Your task to perform on an android device: toggle priority inbox in the gmail app Image 0: 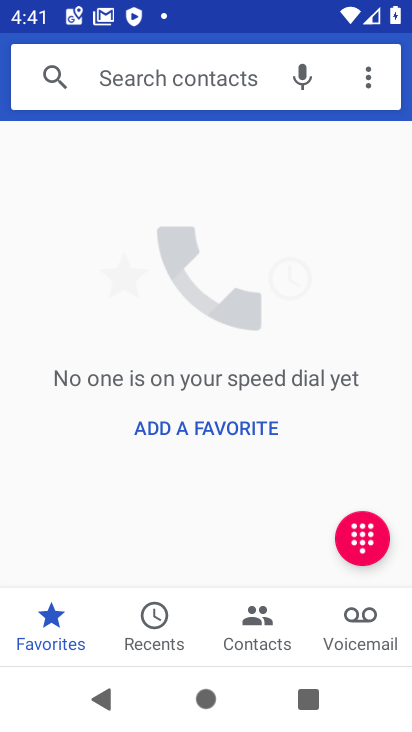
Step 0: press home button
Your task to perform on an android device: toggle priority inbox in the gmail app Image 1: 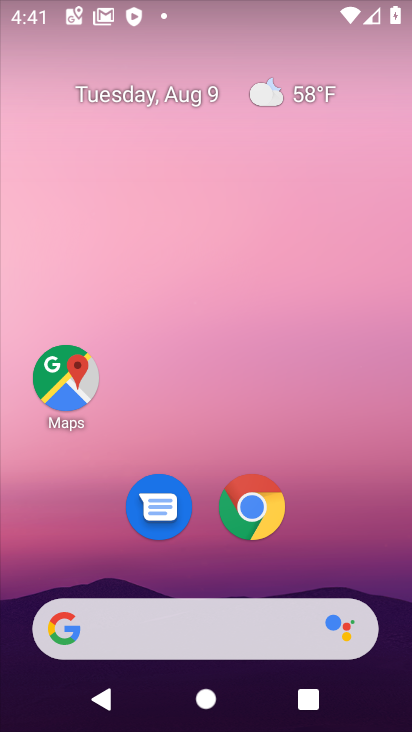
Step 1: drag from (216, 559) to (371, 23)
Your task to perform on an android device: toggle priority inbox in the gmail app Image 2: 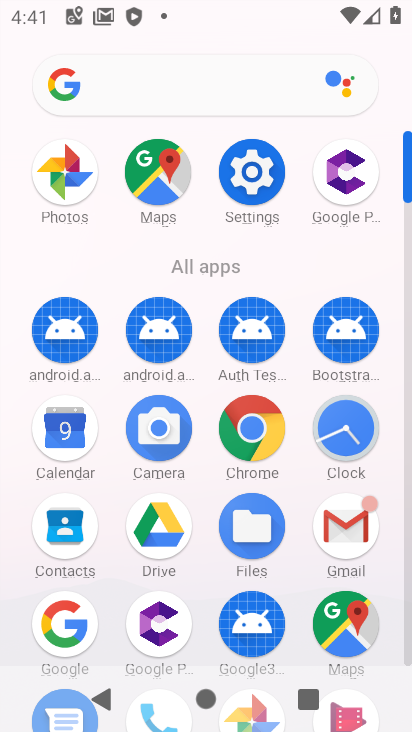
Step 2: click (346, 517)
Your task to perform on an android device: toggle priority inbox in the gmail app Image 3: 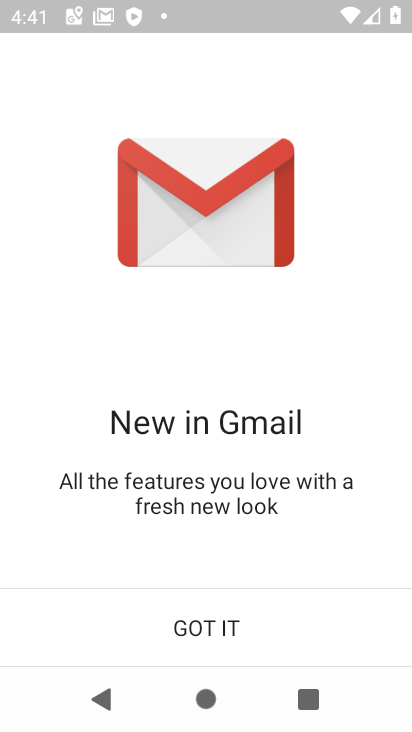
Step 3: click (275, 634)
Your task to perform on an android device: toggle priority inbox in the gmail app Image 4: 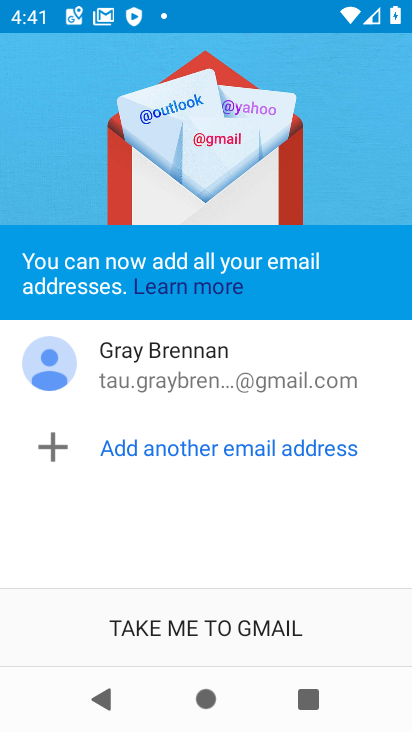
Step 4: click (275, 634)
Your task to perform on an android device: toggle priority inbox in the gmail app Image 5: 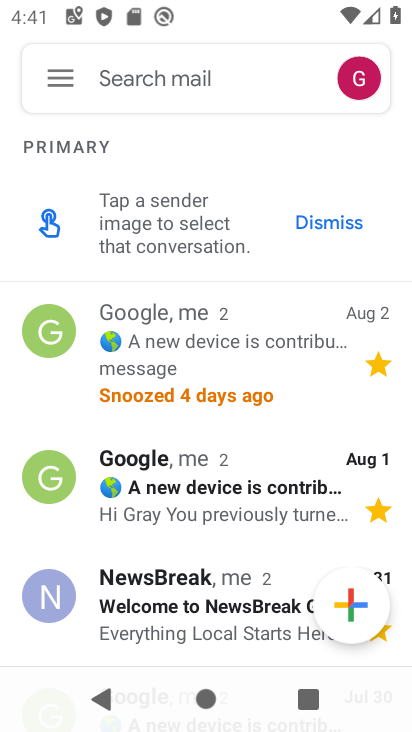
Step 5: click (54, 69)
Your task to perform on an android device: toggle priority inbox in the gmail app Image 6: 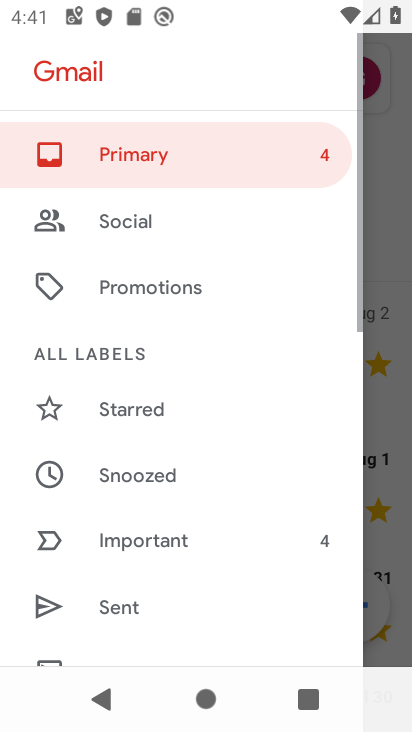
Step 6: drag from (159, 618) to (103, 181)
Your task to perform on an android device: toggle priority inbox in the gmail app Image 7: 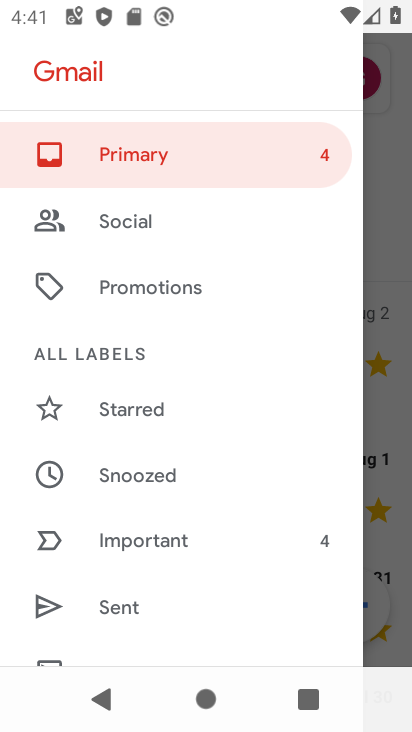
Step 7: drag from (131, 427) to (171, 89)
Your task to perform on an android device: toggle priority inbox in the gmail app Image 8: 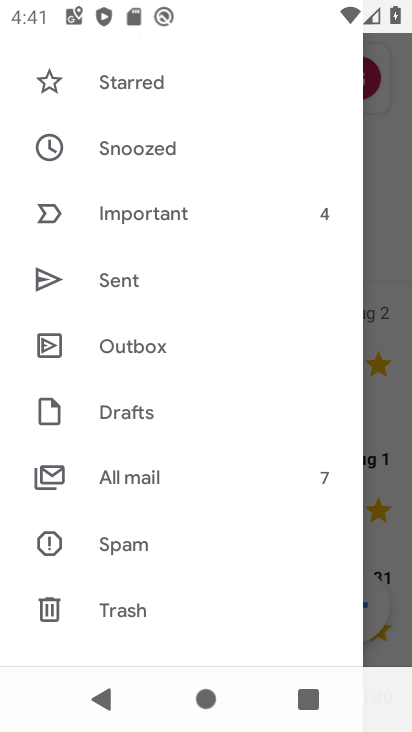
Step 8: drag from (134, 605) to (120, 162)
Your task to perform on an android device: toggle priority inbox in the gmail app Image 9: 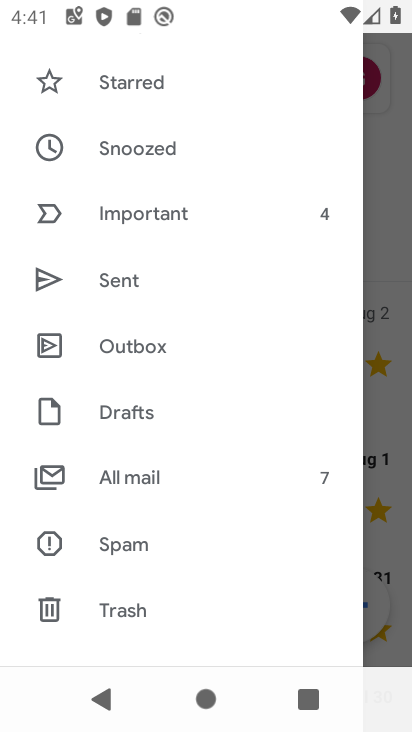
Step 9: drag from (126, 576) to (137, 14)
Your task to perform on an android device: toggle priority inbox in the gmail app Image 10: 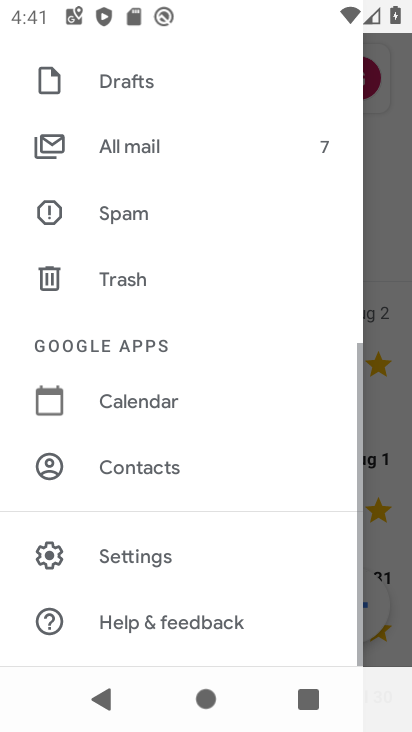
Step 10: click (186, 559)
Your task to perform on an android device: toggle priority inbox in the gmail app Image 11: 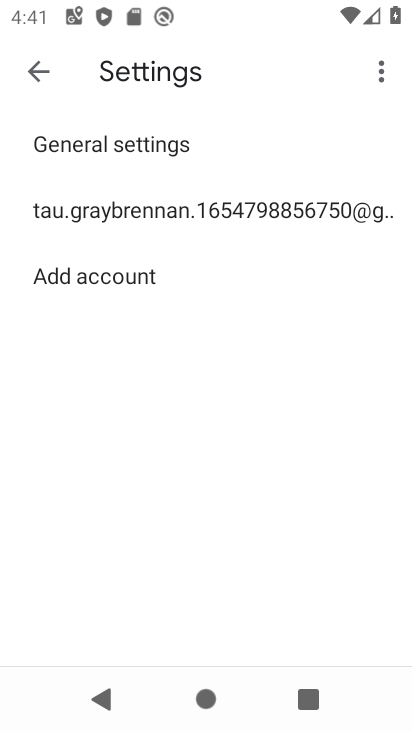
Step 11: click (233, 227)
Your task to perform on an android device: toggle priority inbox in the gmail app Image 12: 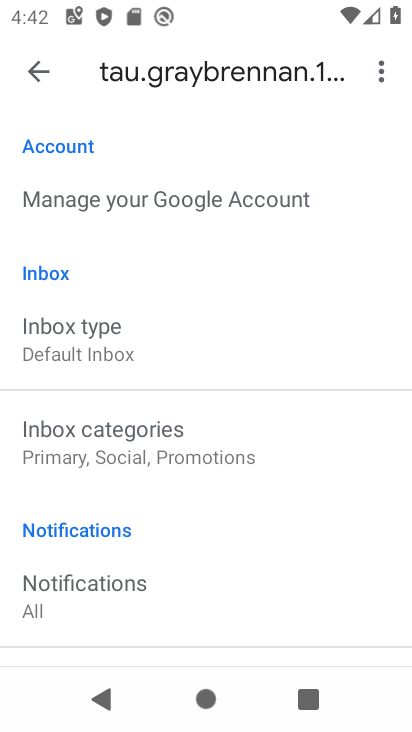
Step 12: click (95, 361)
Your task to perform on an android device: toggle priority inbox in the gmail app Image 13: 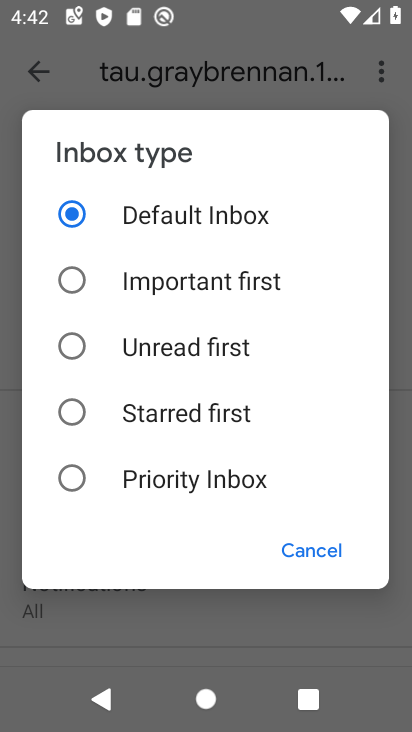
Step 13: click (146, 487)
Your task to perform on an android device: toggle priority inbox in the gmail app Image 14: 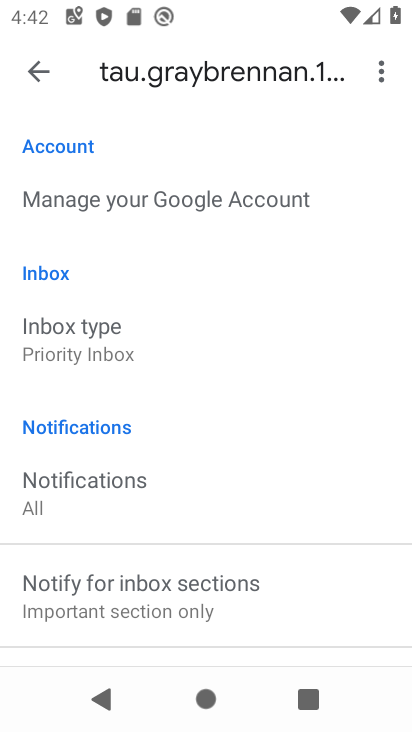
Step 14: task complete